Your task to perform on an android device: Show the shopping cart on target.com. Search for alienware area 51 on target.com, select the first entry, and add it to the cart. Image 0: 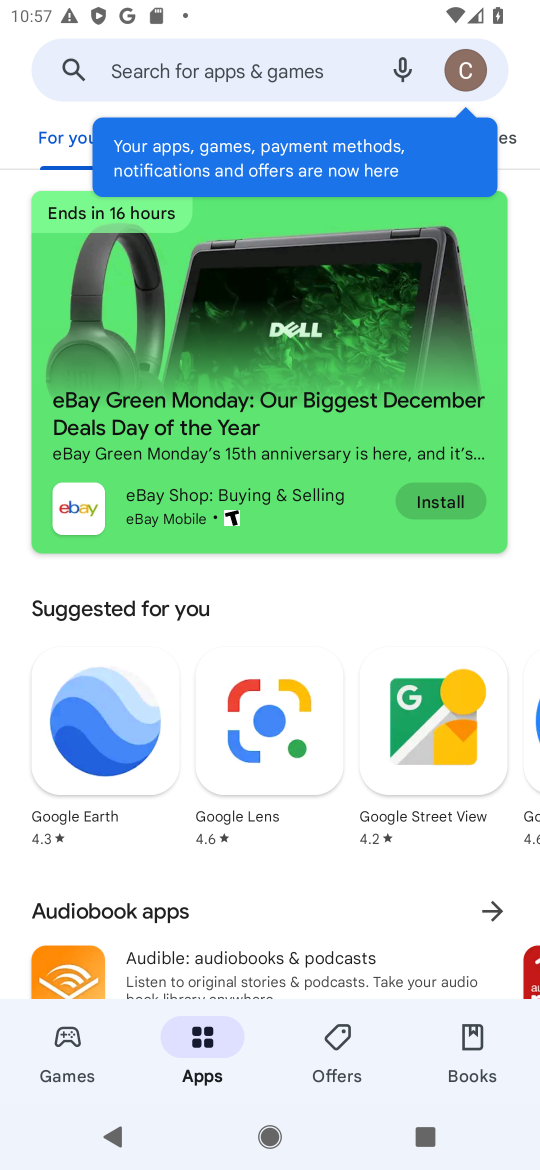
Step 0: press home button
Your task to perform on an android device: Show the shopping cart on target.com. Search for alienware area 51 on target.com, select the first entry, and add it to the cart. Image 1: 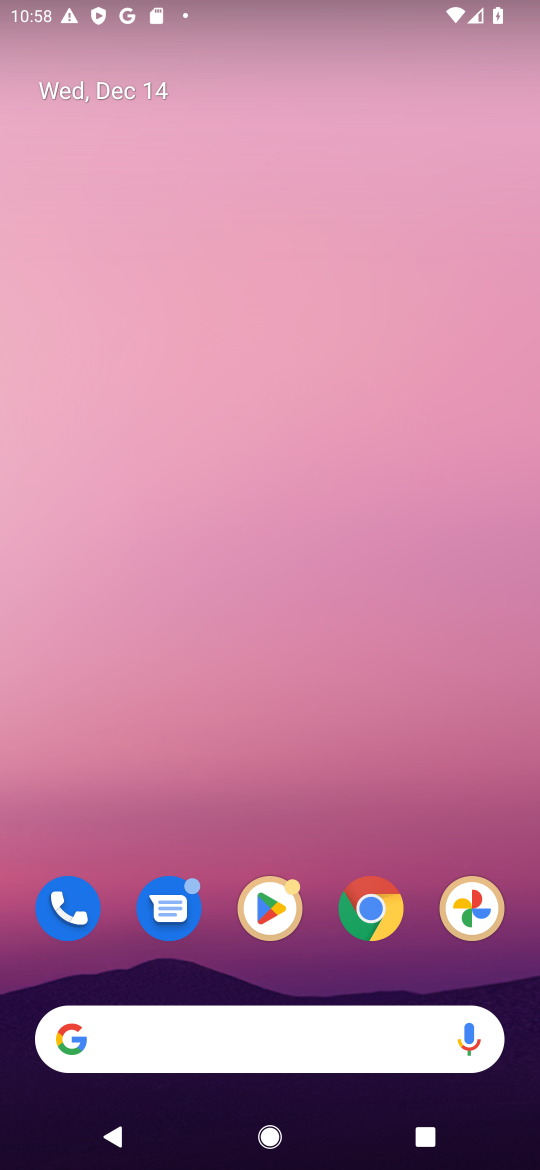
Step 1: click (371, 922)
Your task to perform on an android device: Show the shopping cart on target.com. Search for alienware area 51 on target.com, select the first entry, and add it to the cart. Image 2: 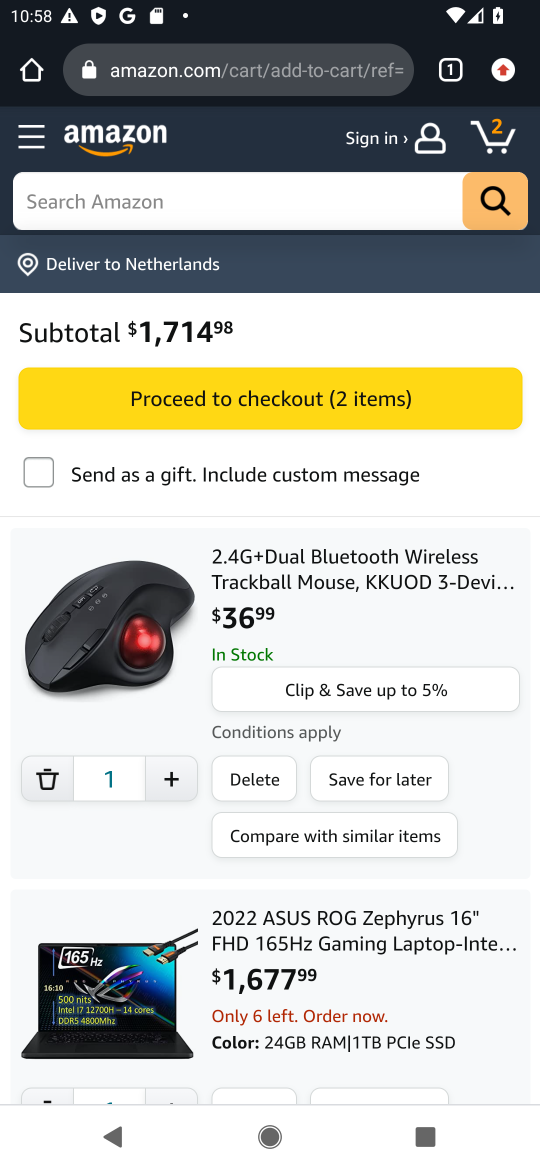
Step 2: click (277, 79)
Your task to perform on an android device: Show the shopping cart on target.com. Search for alienware area 51 on target.com, select the first entry, and add it to the cart. Image 3: 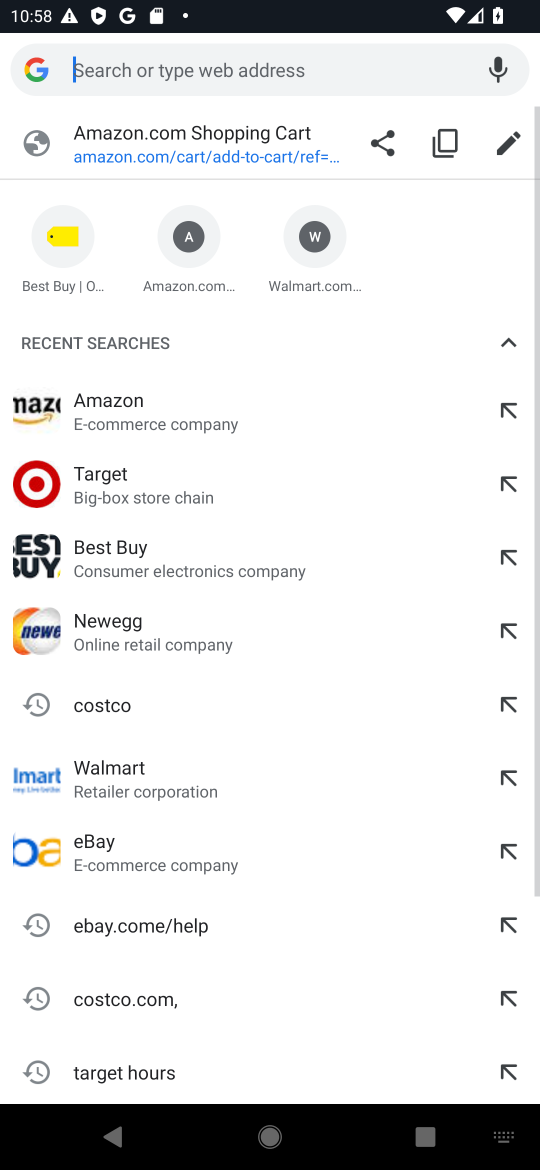
Step 3: click (286, 498)
Your task to perform on an android device: Show the shopping cart on target.com. Search for alienware area 51 on target.com, select the first entry, and add it to the cart. Image 4: 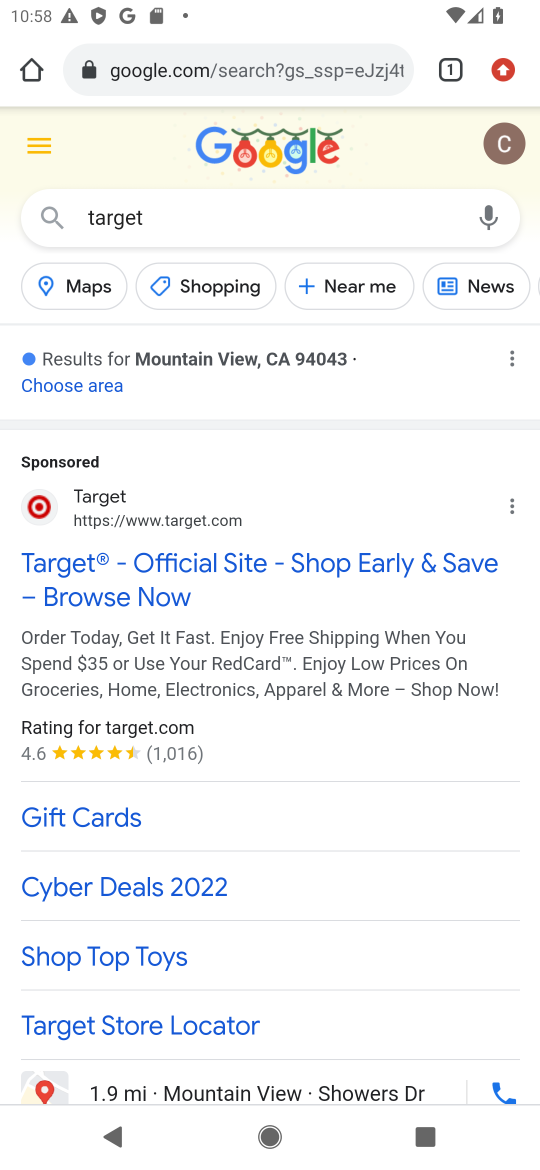
Step 4: click (131, 494)
Your task to perform on an android device: Show the shopping cart on target.com. Search for alienware area 51 on target.com, select the first entry, and add it to the cart. Image 5: 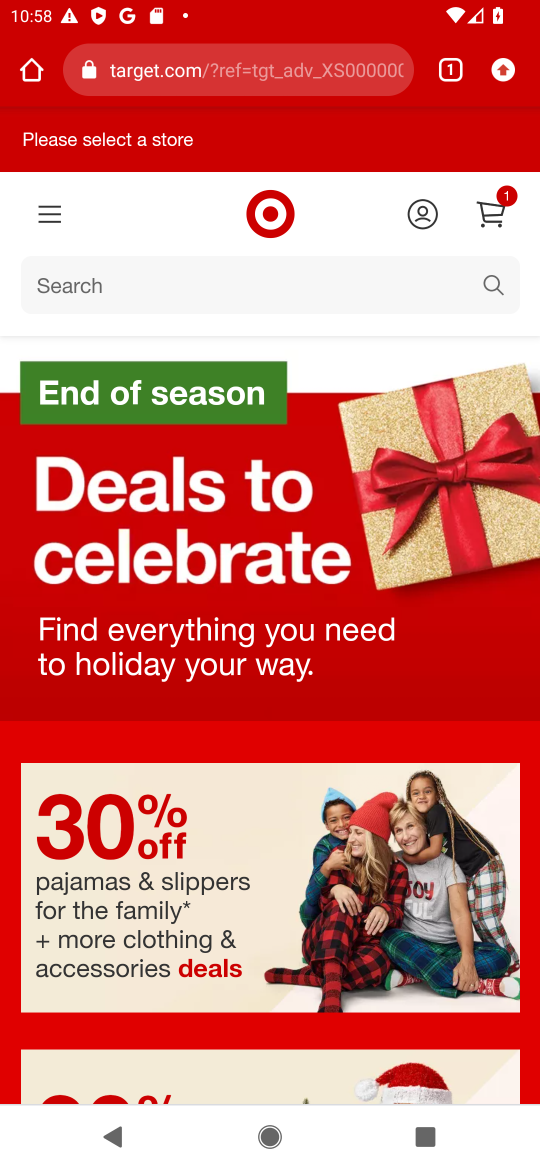
Step 5: click (154, 289)
Your task to perform on an android device: Show the shopping cart on target.com. Search for alienware area 51 on target.com, select the first entry, and add it to the cart. Image 6: 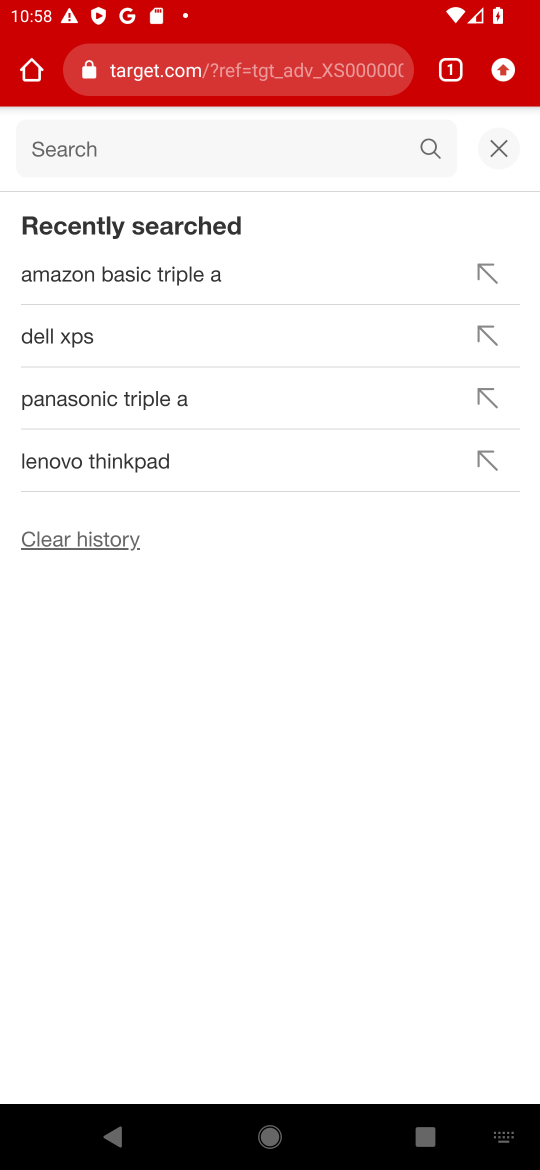
Step 6: type "alienware area 51"
Your task to perform on an android device: Show the shopping cart on target.com. Search for alienware area 51 on target.com, select the first entry, and add it to the cart. Image 7: 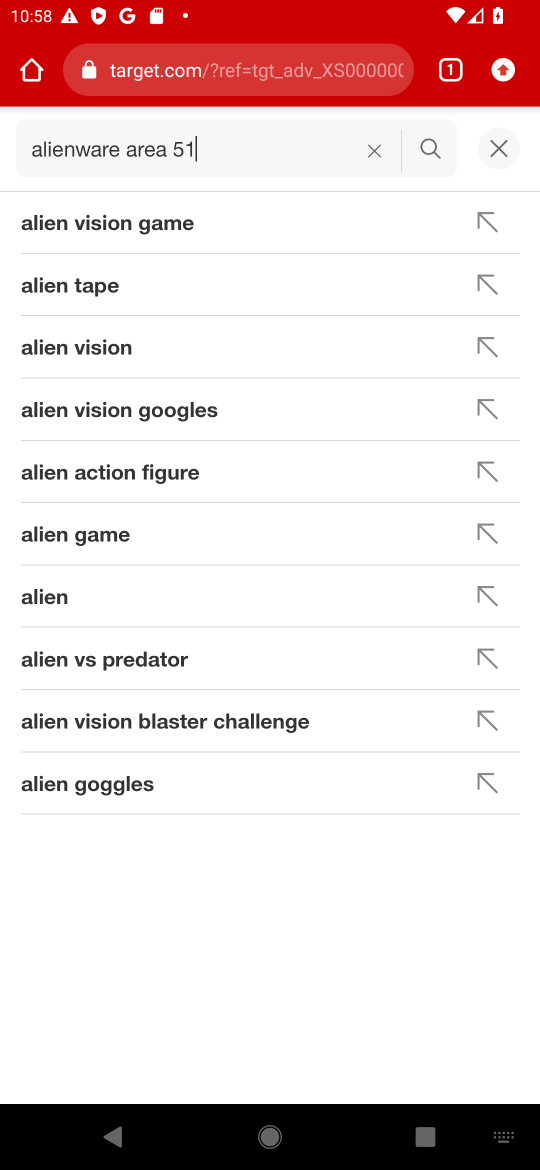
Step 7: click (432, 166)
Your task to perform on an android device: Show the shopping cart on target.com. Search for alienware area 51 on target.com, select the first entry, and add it to the cart. Image 8: 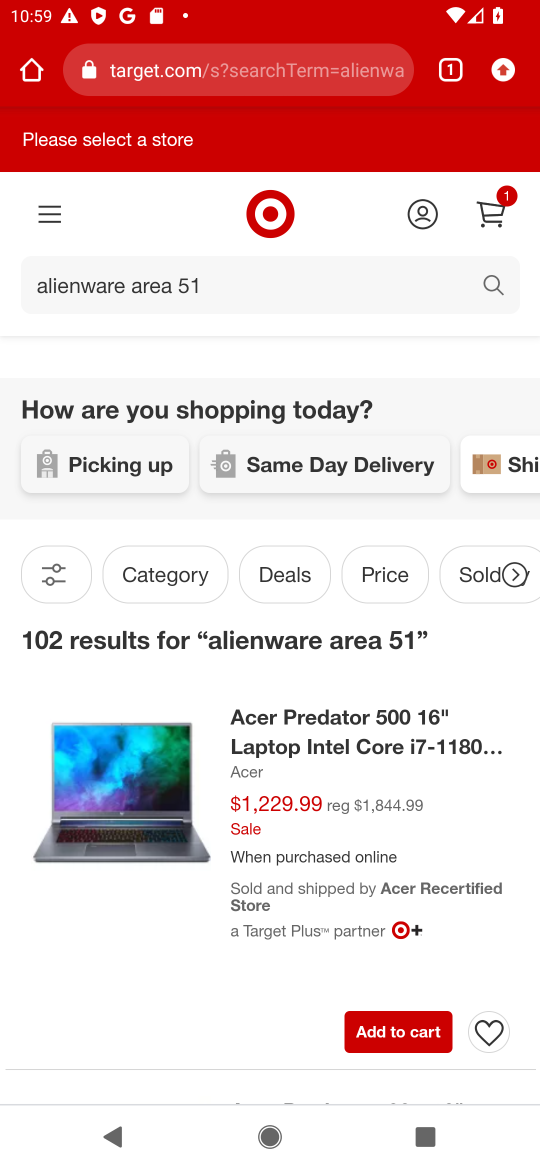
Step 8: click (373, 1029)
Your task to perform on an android device: Show the shopping cart on target.com. Search for alienware area 51 on target.com, select the first entry, and add it to the cart. Image 9: 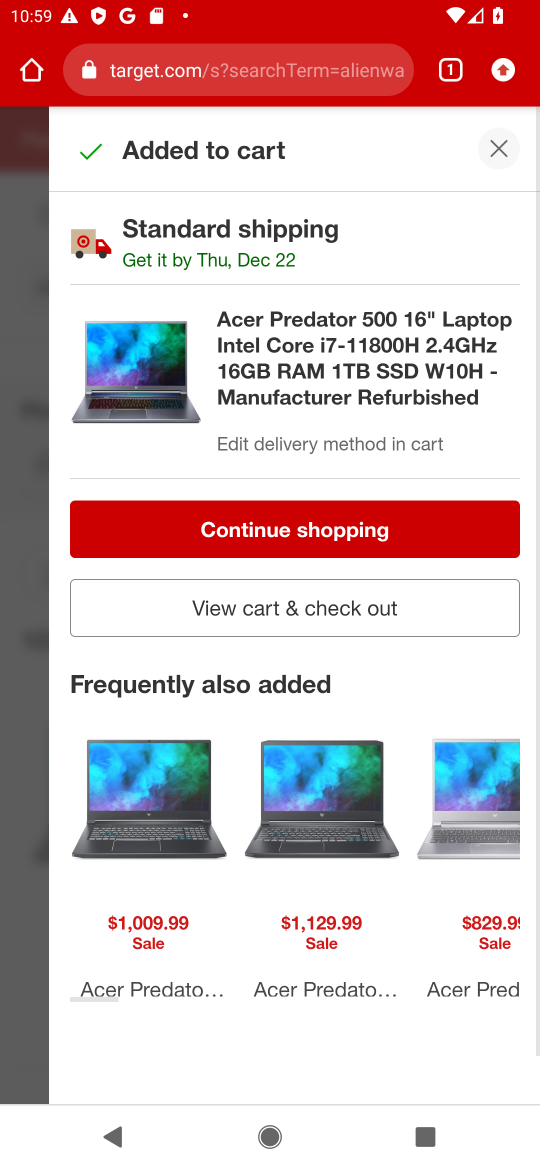
Step 9: task complete